Your task to perform on an android device: all mails in gmail Image 0: 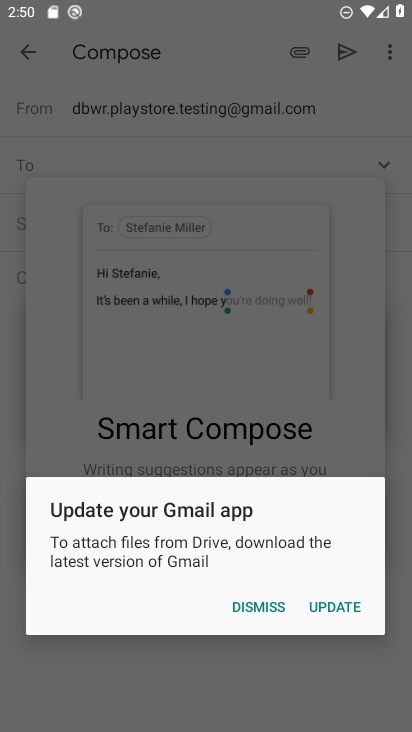
Step 0: click (338, 521)
Your task to perform on an android device: all mails in gmail Image 1: 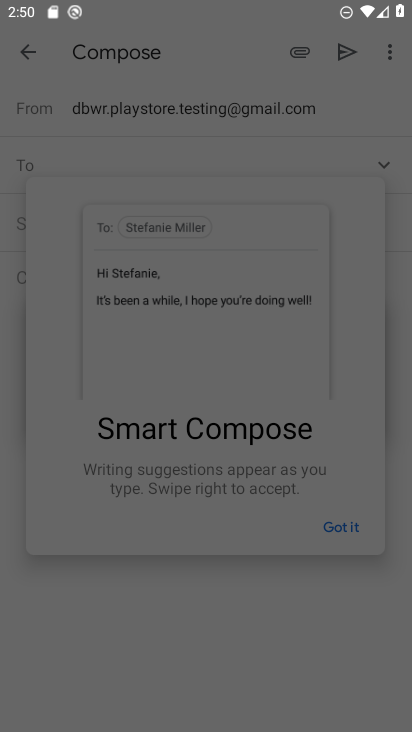
Step 1: press back button
Your task to perform on an android device: all mails in gmail Image 2: 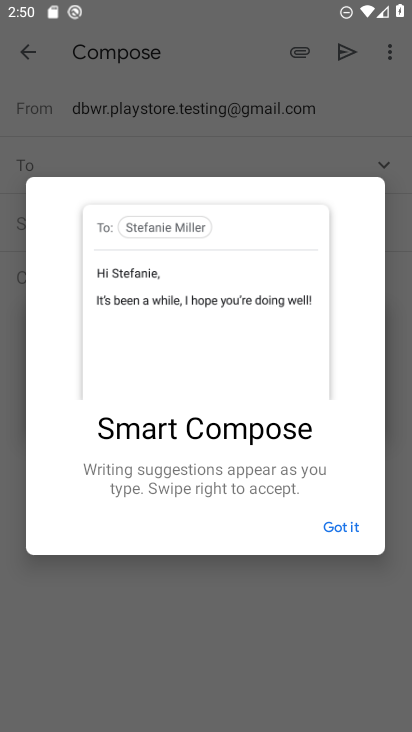
Step 2: press back button
Your task to perform on an android device: all mails in gmail Image 3: 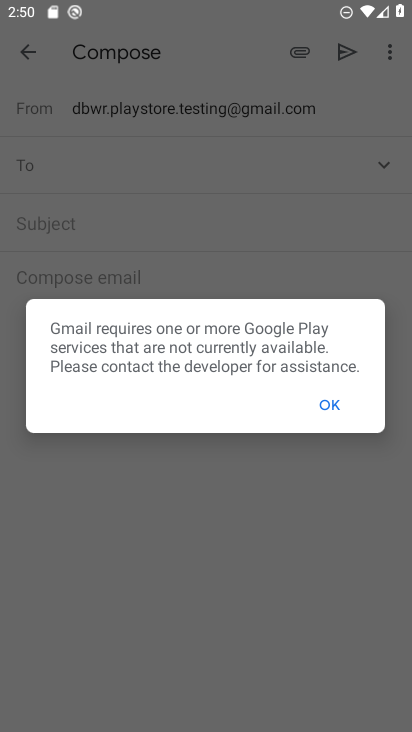
Step 3: press back button
Your task to perform on an android device: all mails in gmail Image 4: 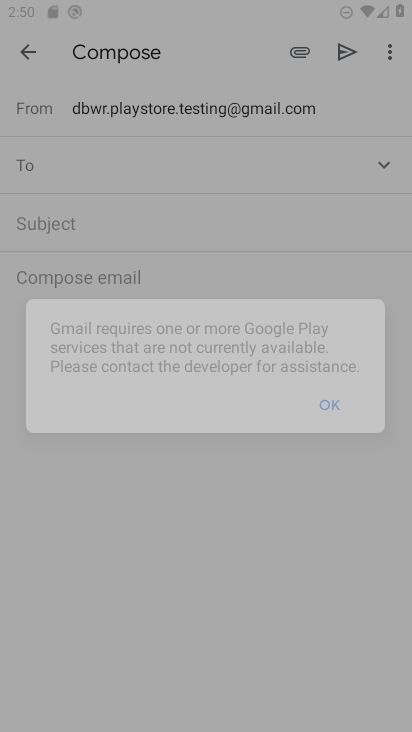
Step 4: press back button
Your task to perform on an android device: all mails in gmail Image 5: 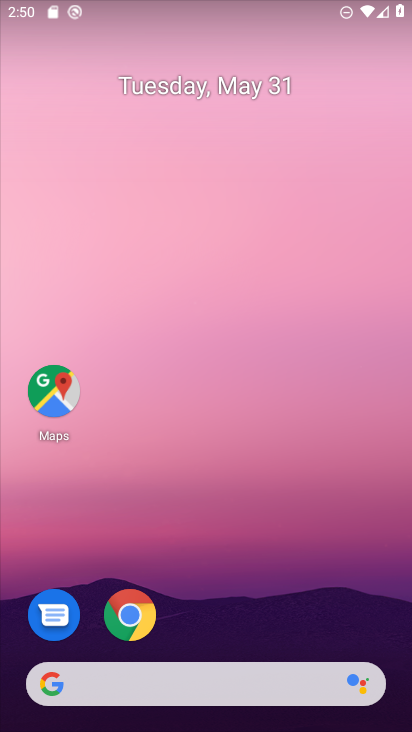
Step 5: drag from (228, 580) to (156, 91)
Your task to perform on an android device: all mails in gmail Image 6: 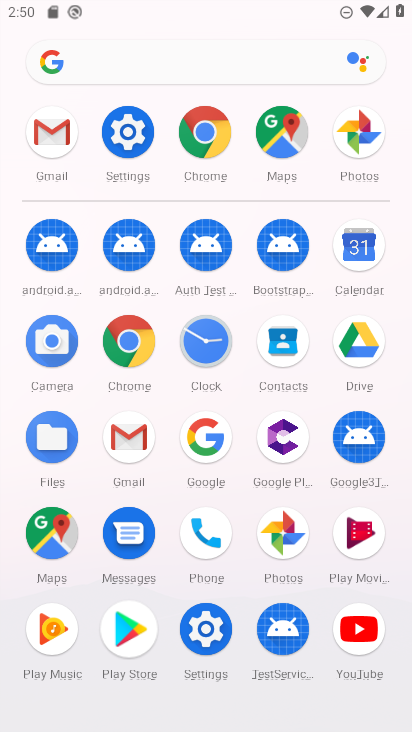
Step 6: click (131, 456)
Your task to perform on an android device: all mails in gmail Image 7: 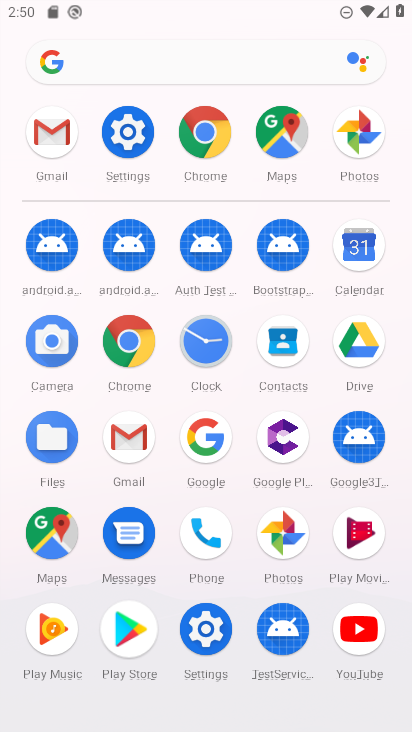
Step 7: click (129, 446)
Your task to perform on an android device: all mails in gmail Image 8: 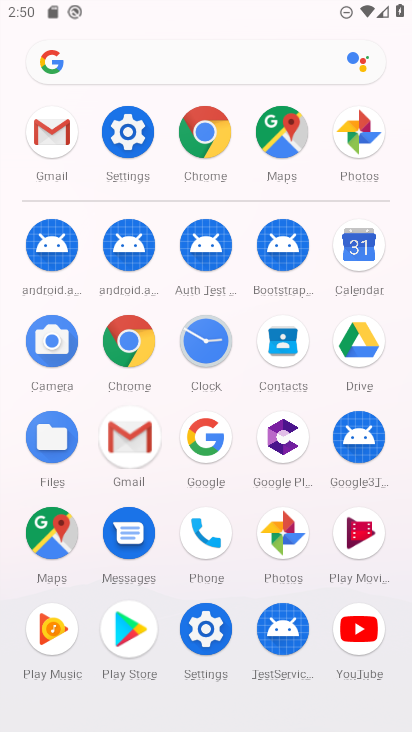
Step 8: click (129, 446)
Your task to perform on an android device: all mails in gmail Image 9: 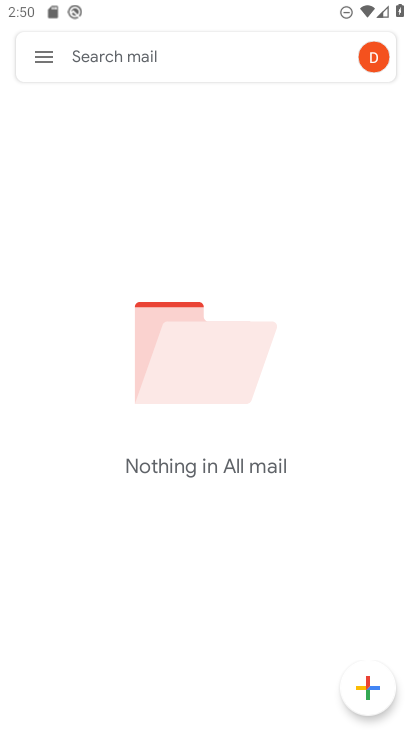
Step 9: click (51, 52)
Your task to perform on an android device: all mails in gmail Image 10: 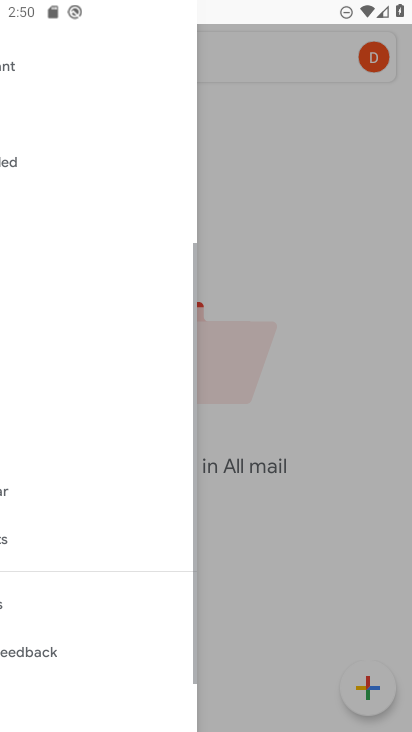
Step 10: click (50, 51)
Your task to perform on an android device: all mails in gmail Image 11: 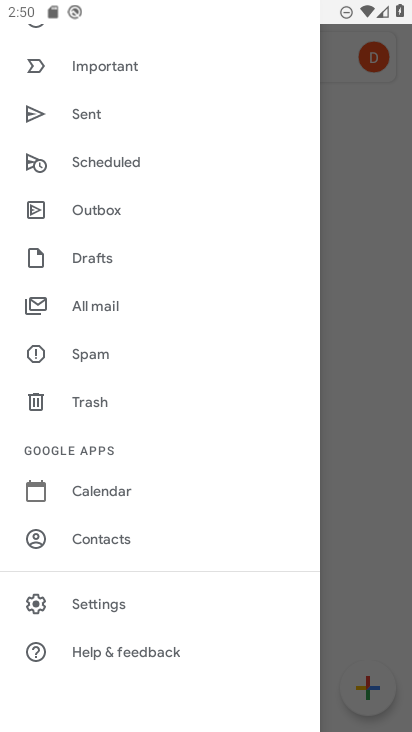
Step 11: click (89, 305)
Your task to perform on an android device: all mails in gmail Image 12: 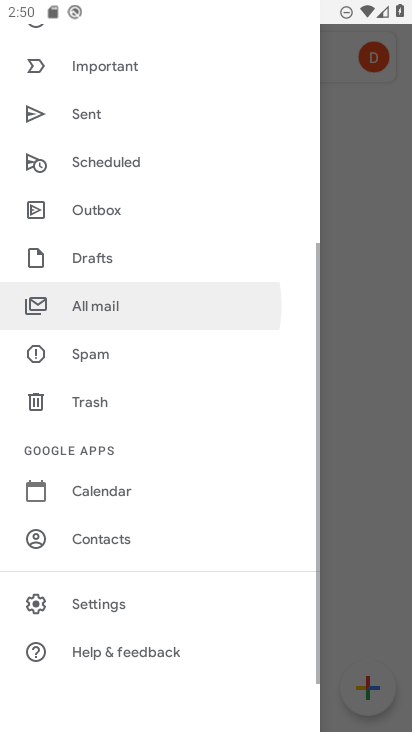
Step 12: click (90, 308)
Your task to perform on an android device: all mails in gmail Image 13: 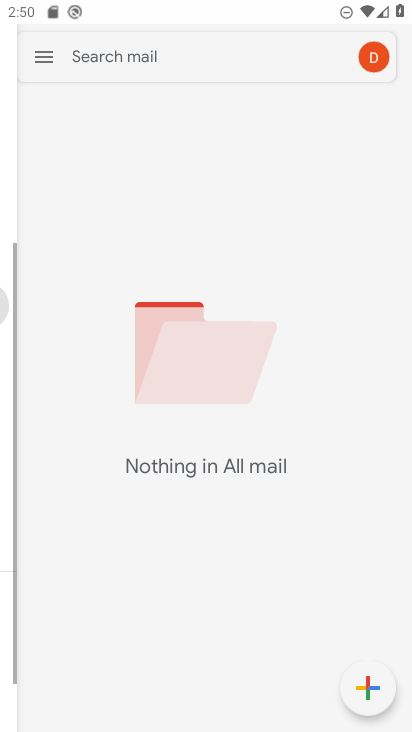
Step 13: click (90, 308)
Your task to perform on an android device: all mails in gmail Image 14: 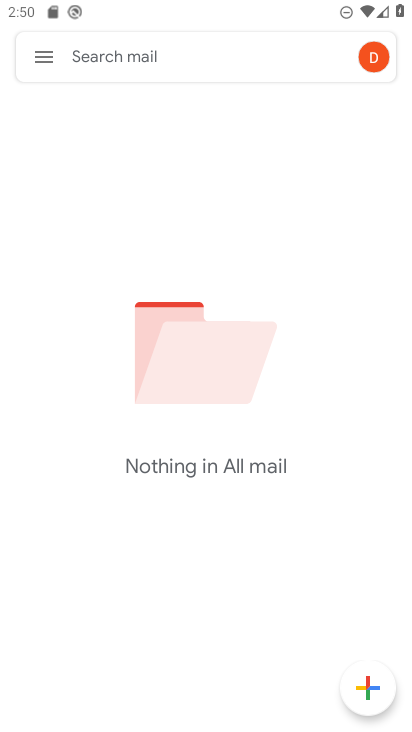
Step 14: task complete